Your task to perform on an android device: What's the weather going to be this weekend? Image 0: 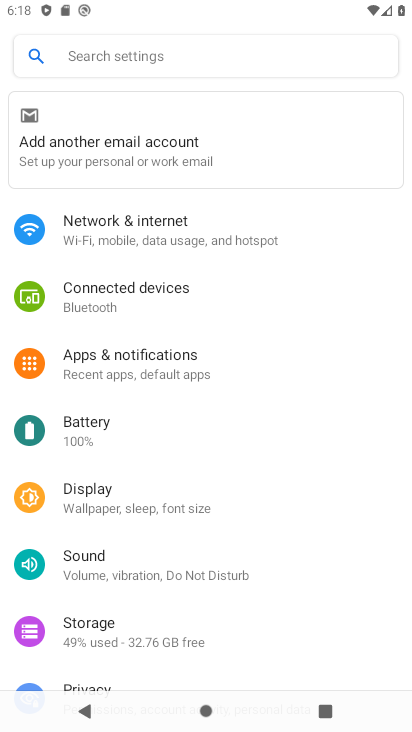
Step 0: press home button
Your task to perform on an android device: What's the weather going to be this weekend? Image 1: 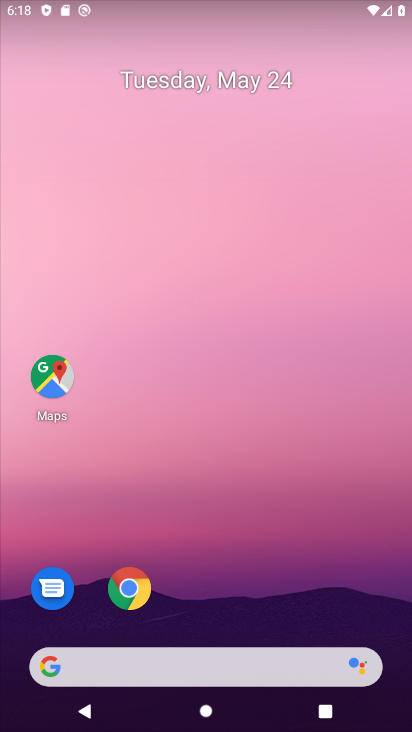
Step 1: drag from (208, 659) to (221, 1)
Your task to perform on an android device: What's the weather going to be this weekend? Image 2: 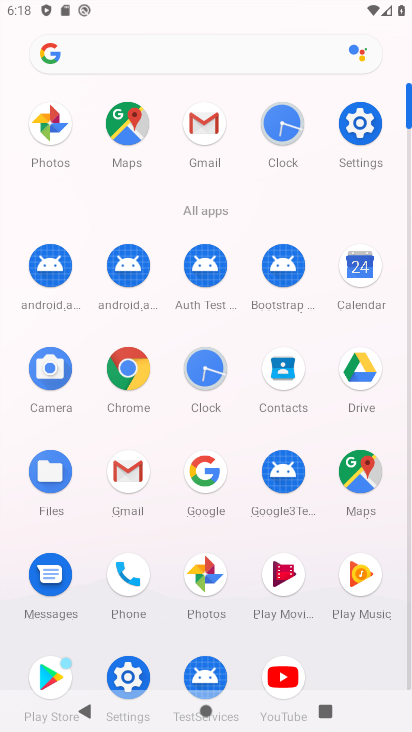
Step 2: press home button
Your task to perform on an android device: What's the weather going to be this weekend? Image 3: 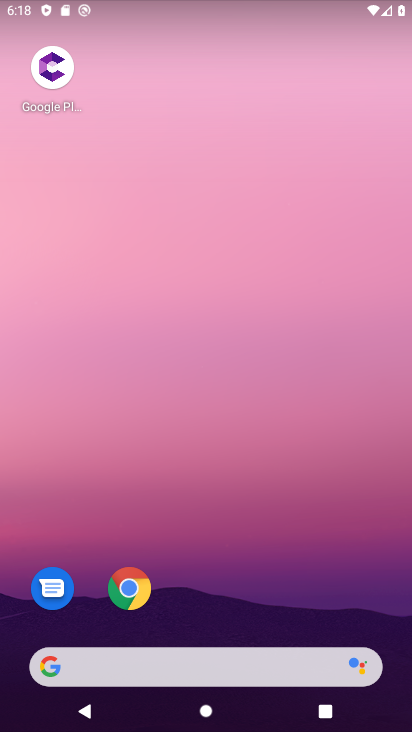
Step 3: drag from (32, 307) to (411, 583)
Your task to perform on an android device: What's the weather going to be this weekend? Image 4: 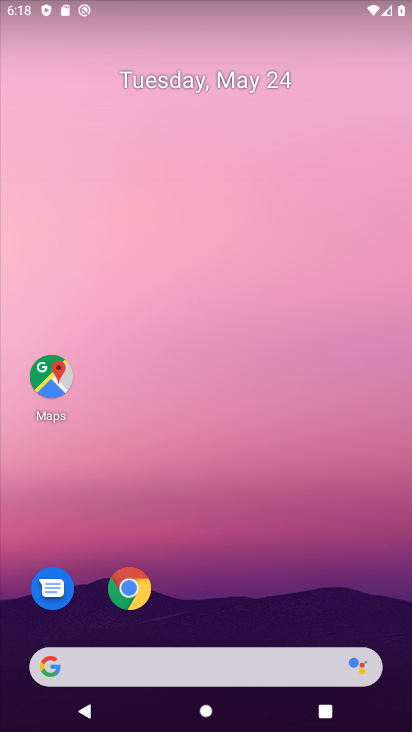
Step 4: drag from (48, 298) to (409, 256)
Your task to perform on an android device: What's the weather going to be this weekend? Image 5: 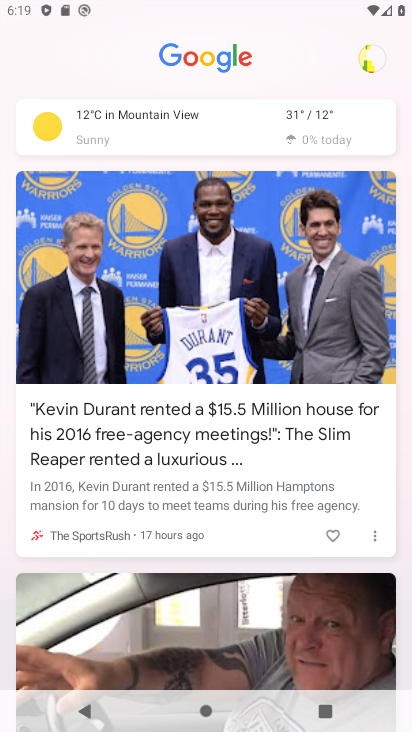
Step 5: click (337, 105)
Your task to perform on an android device: What's the weather going to be this weekend? Image 6: 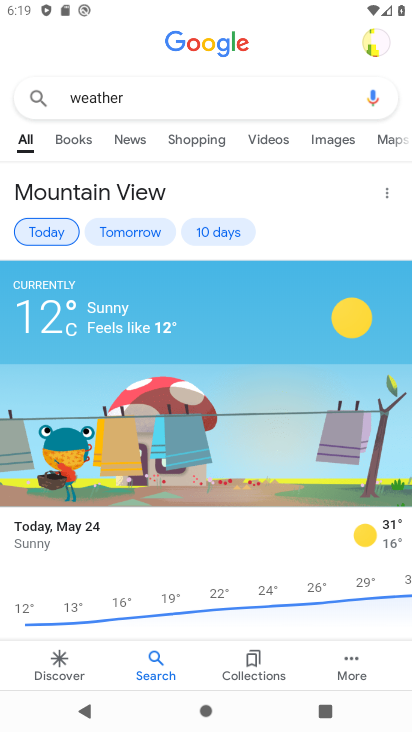
Step 6: task complete